Your task to perform on an android device: What is the news today? Image 0: 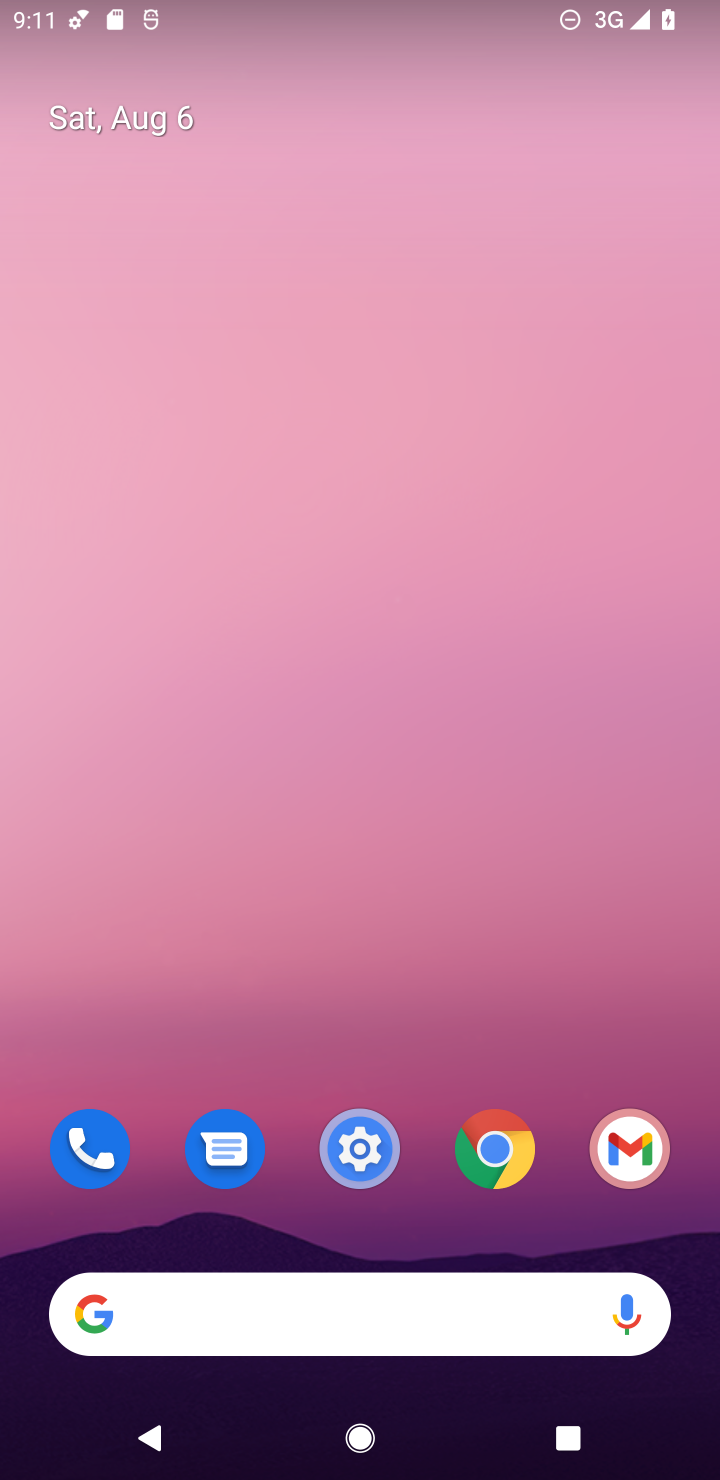
Step 0: click (479, 1172)
Your task to perform on an android device: What is the news today? Image 1: 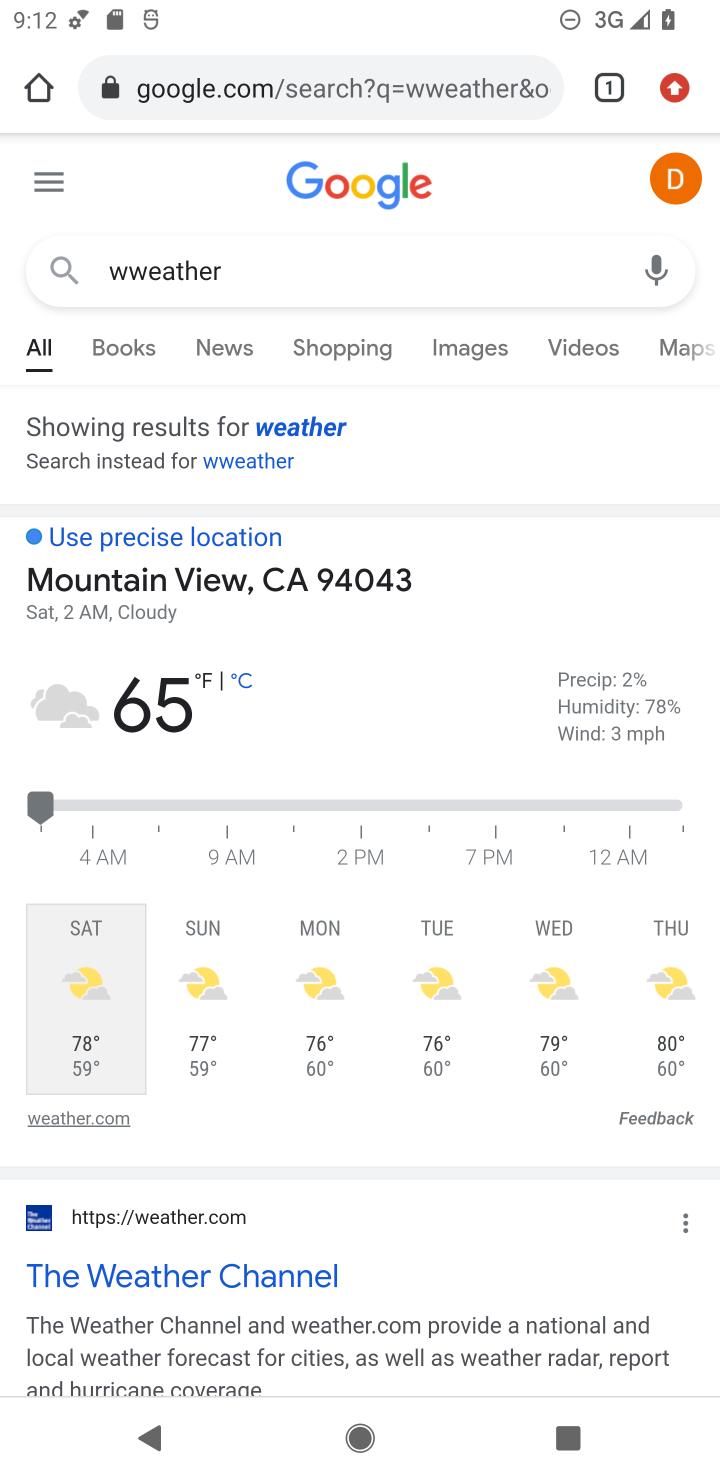
Step 1: click (210, 359)
Your task to perform on an android device: What is the news today? Image 2: 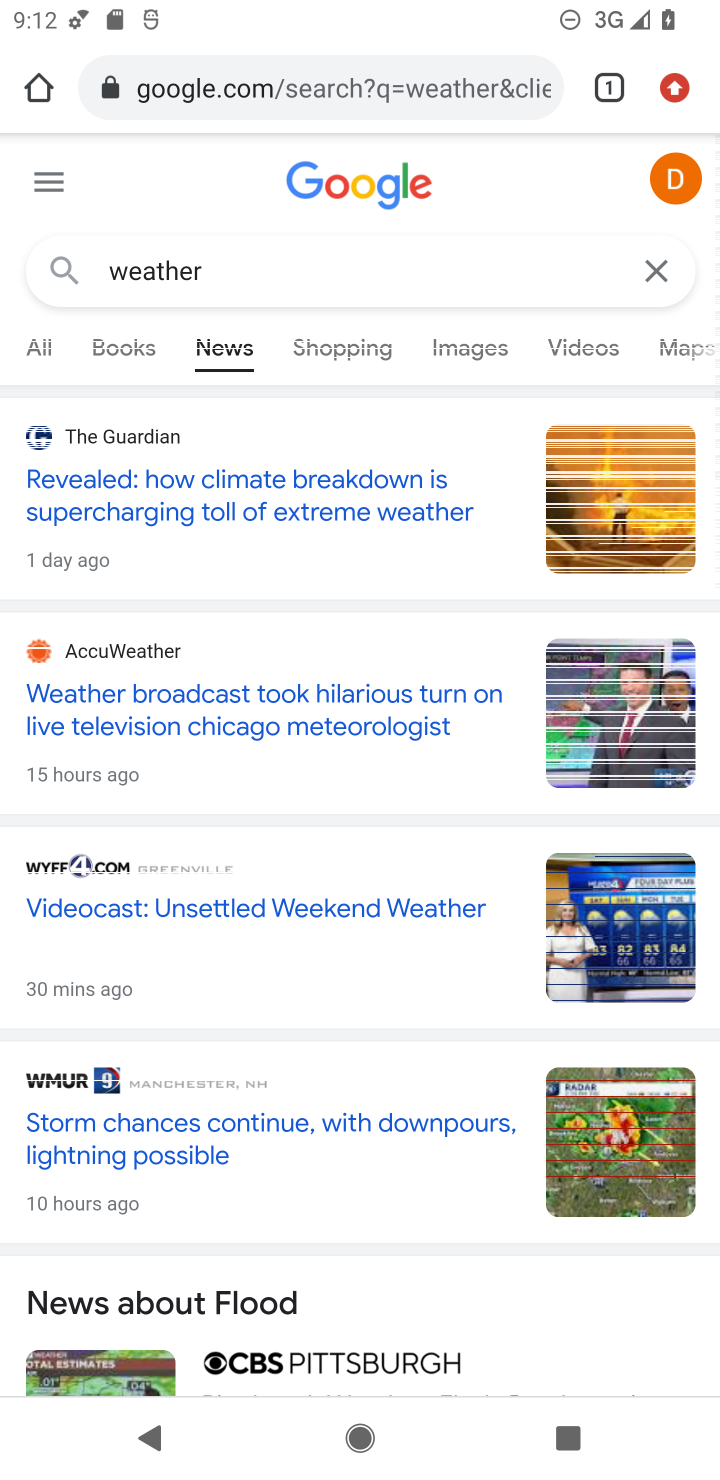
Step 2: task complete